Your task to perform on an android device: Empty the shopping cart on target.com. Image 0: 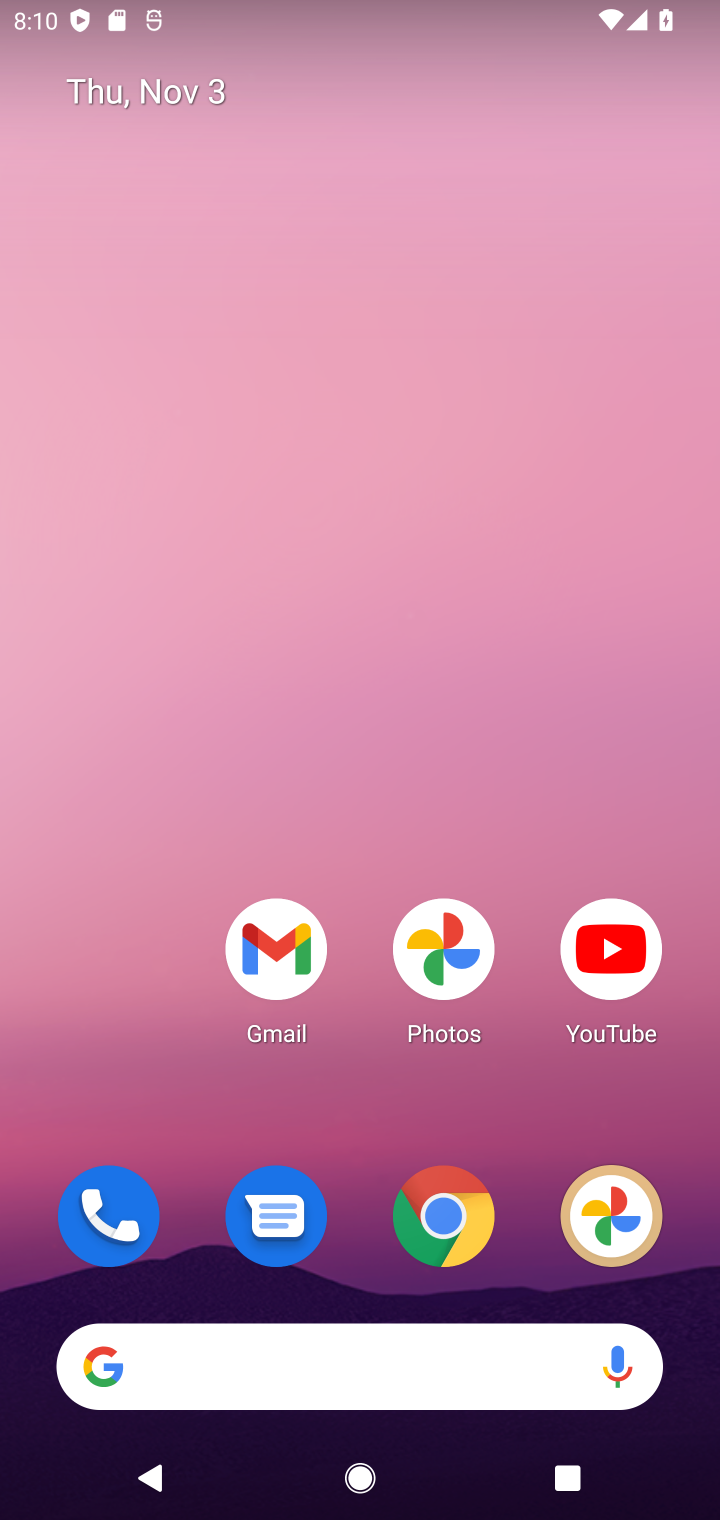
Step 0: click (441, 1250)
Your task to perform on an android device: Empty the shopping cart on target.com. Image 1: 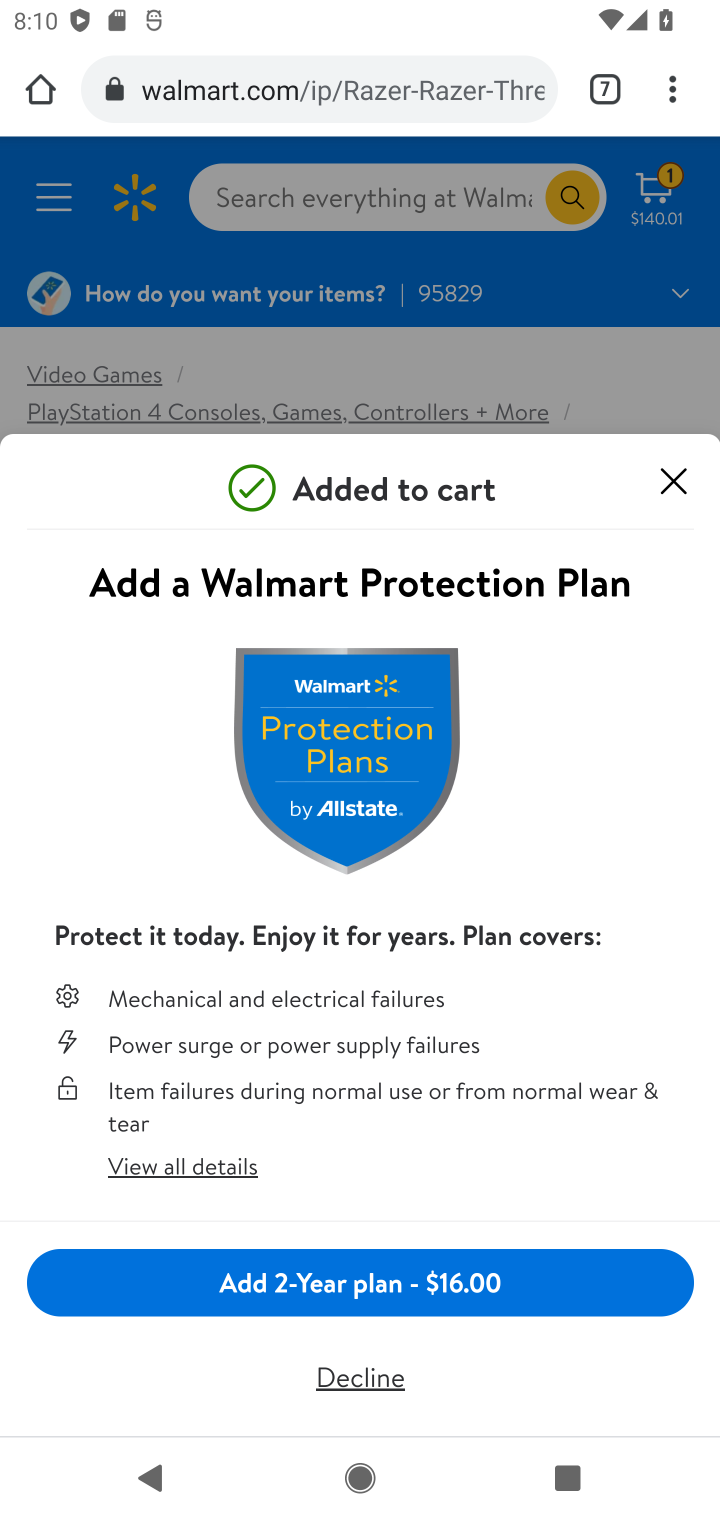
Step 1: click (614, 114)
Your task to perform on an android device: Empty the shopping cart on target.com. Image 2: 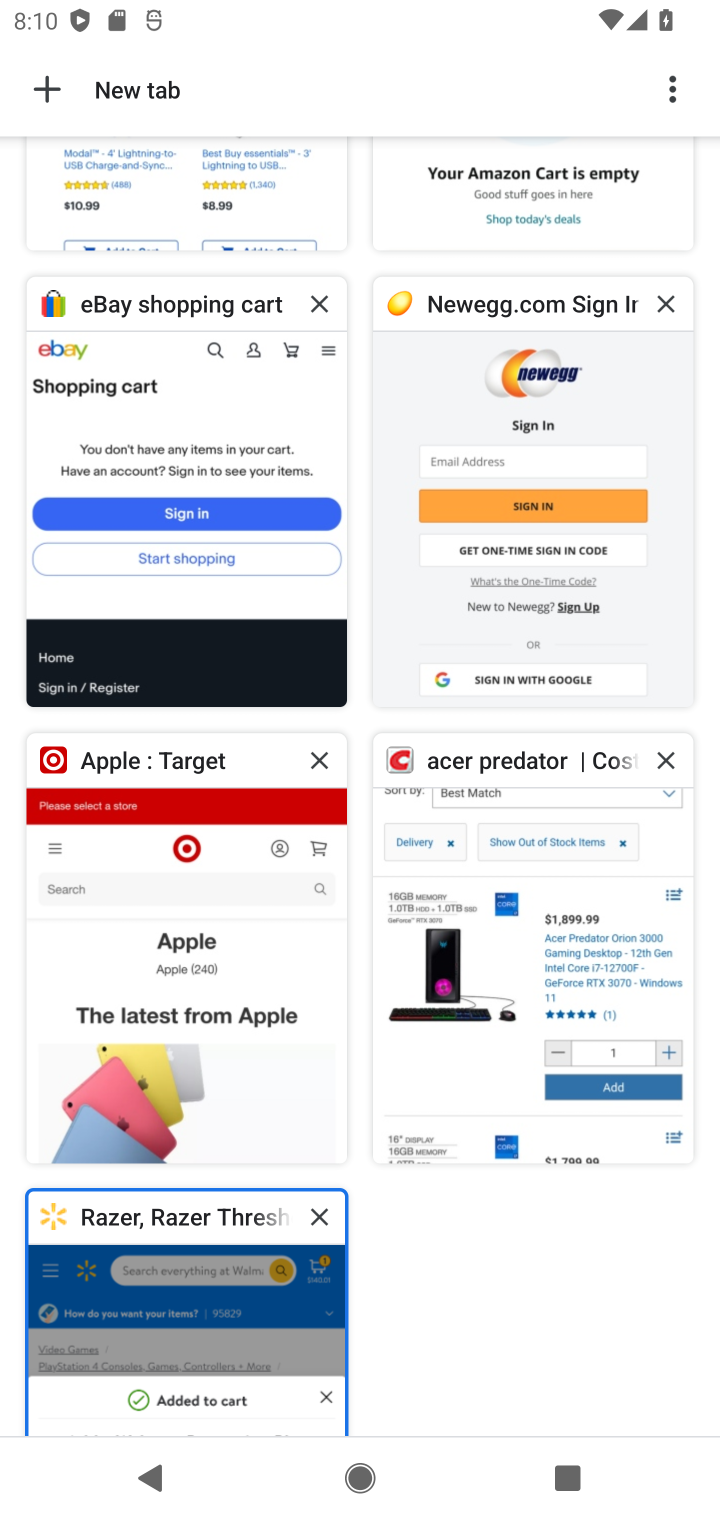
Step 2: click (210, 839)
Your task to perform on an android device: Empty the shopping cart on target.com. Image 3: 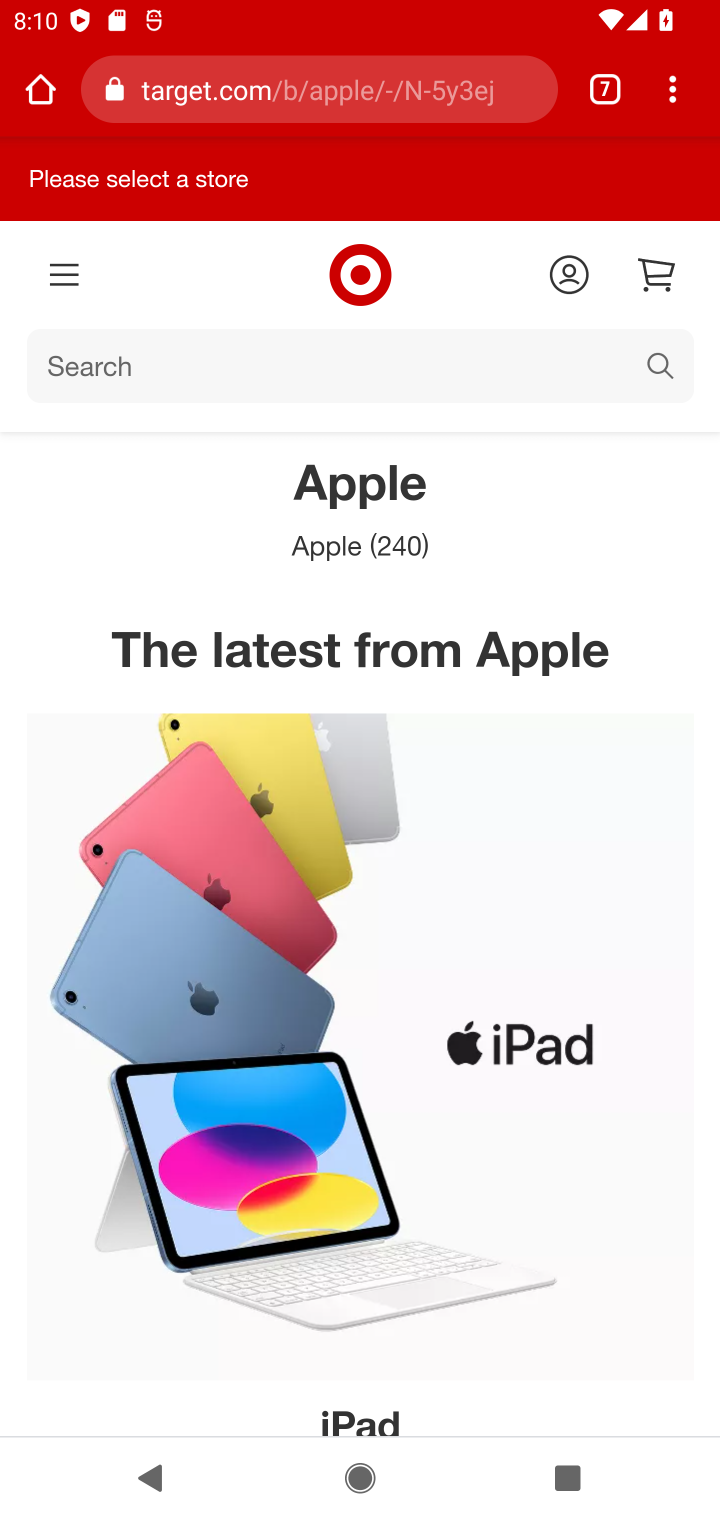
Step 3: click (653, 286)
Your task to perform on an android device: Empty the shopping cart on target.com. Image 4: 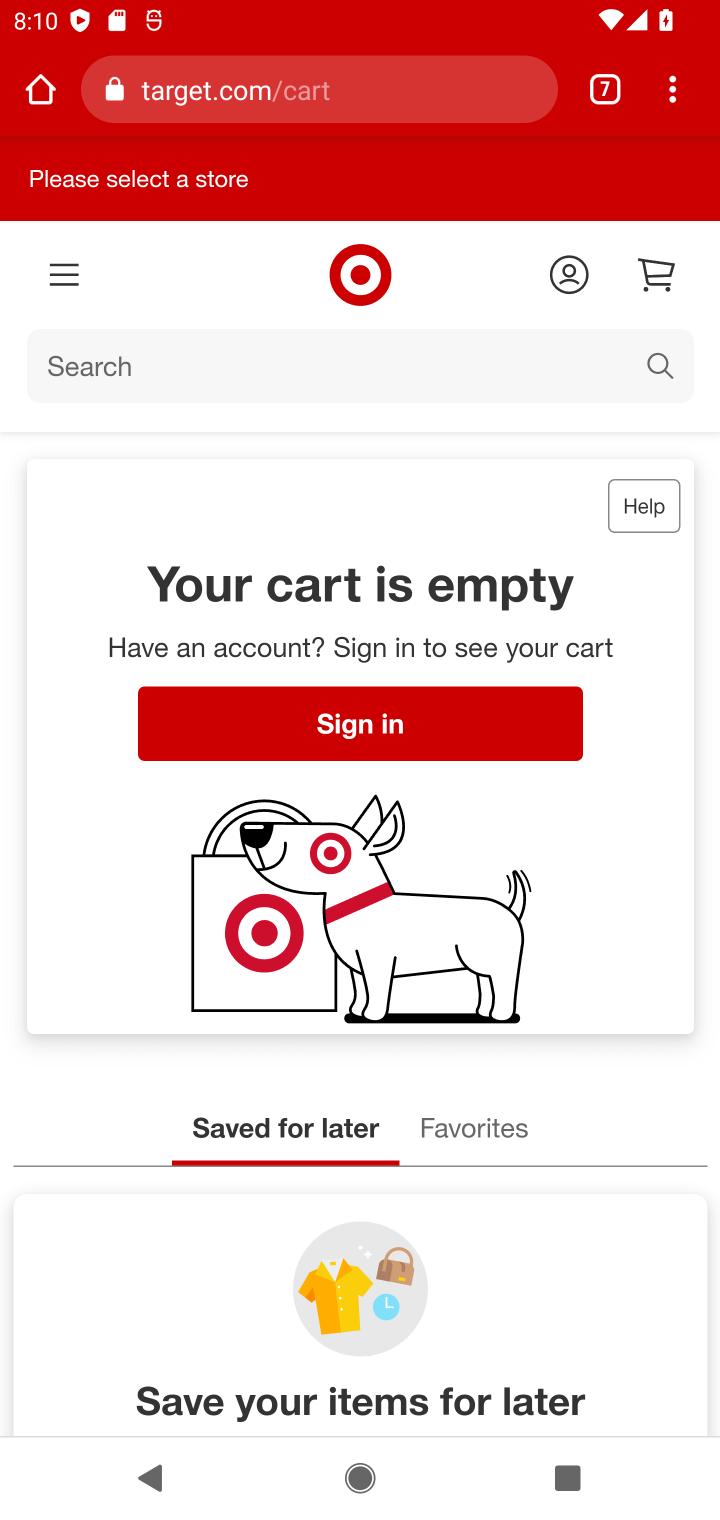
Step 4: task complete